Your task to perform on an android device: Open Youtube and go to "Your channel" Image 0: 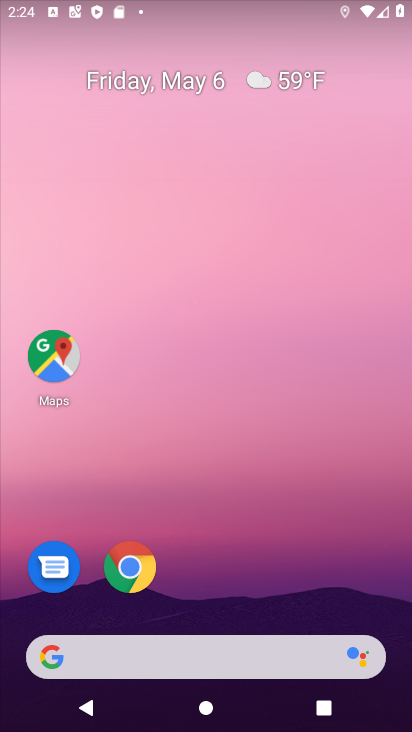
Step 0: drag from (395, 627) to (309, 77)
Your task to perform on an android device: Open Youtube and go to "Your channel" Image 1: 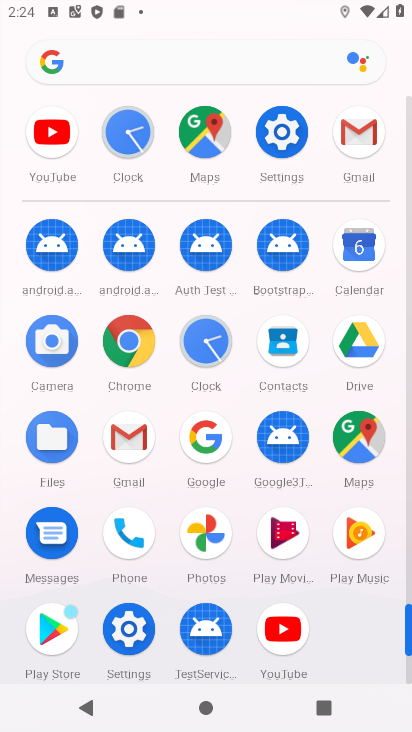
Step 1: click (277, 625)
Your task to perform on an android device: Open Youtube and go to "Your channel" Image 2: 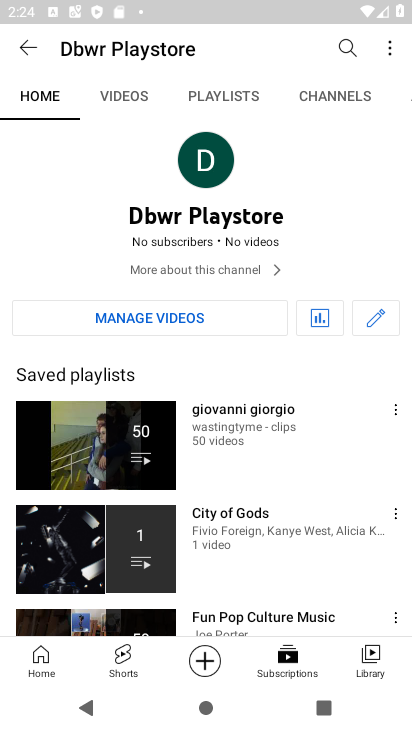
Step 2: task complete